Your task to perform on an android device: What's the weather? Image 0: 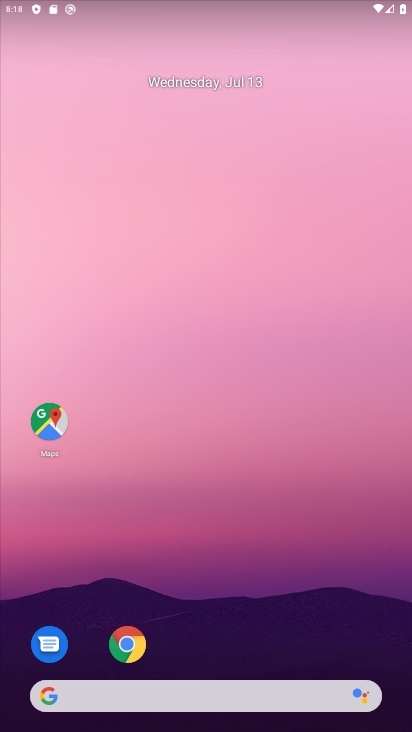
Step 0: drag from (191, 712) to (164, 63)
Your task to perform on an android device: What's the weather? Image 1: 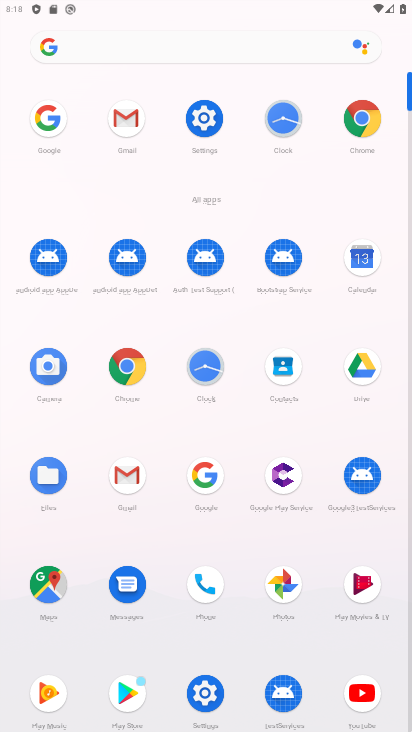
Step 1: click (202, 473)
Your task to perform on an android device: What's the weather? Image 2: 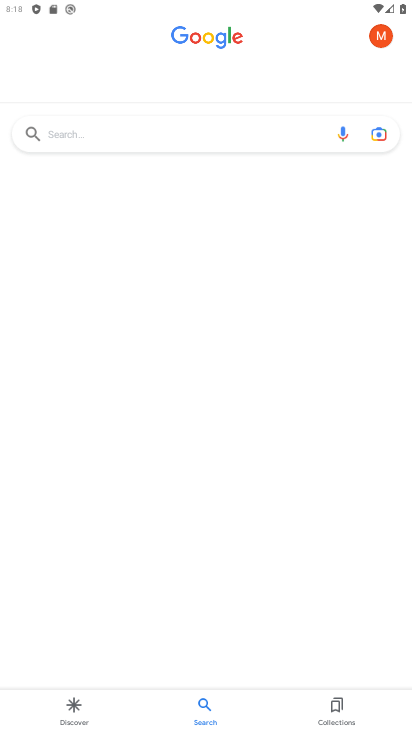
Step 2: click (181, 129)
Your task to perform on an android device: What's the weather? Image 3: 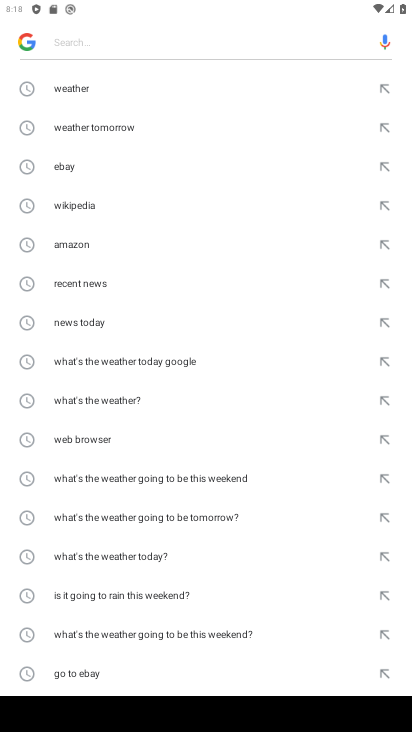
Step 3: click (72, 85)
Your task to perform on an android device: What's the weather? Image 4: 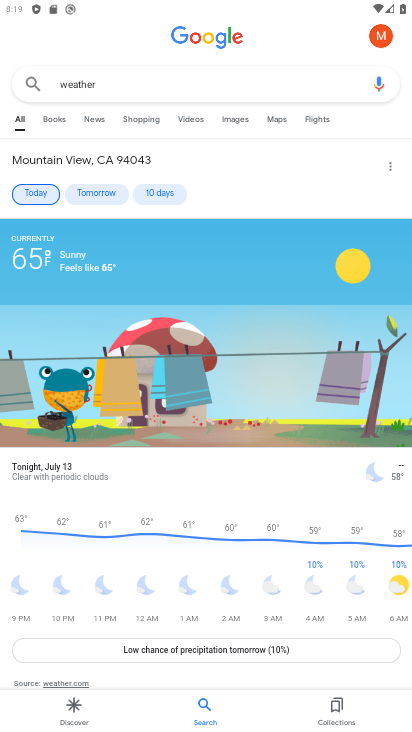
Step 4: task complete